Your task to perform on an android device: Go to Maps Image 0: 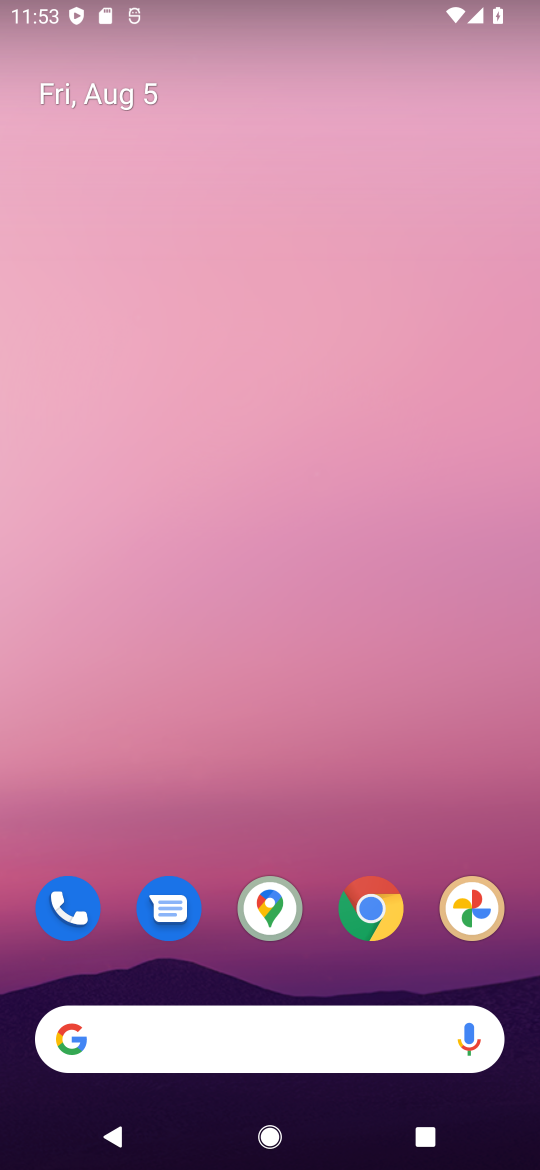
Step 0: drag from (318, 962) to (311, 248)
Your task to perform on an android device: Go to Maps Image 1: 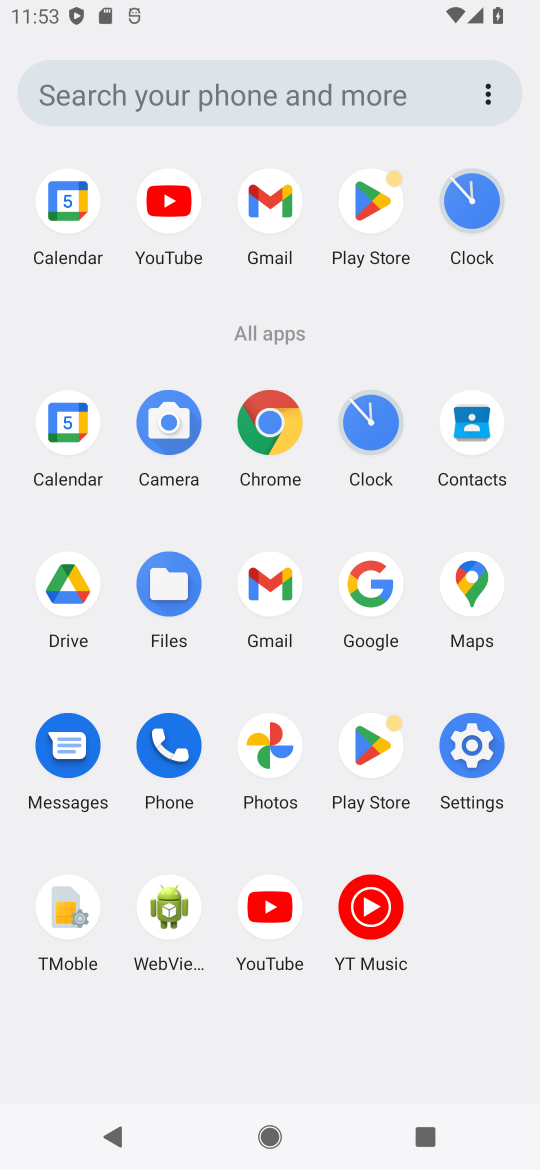
Step 1: click (466, 584)
Your task to perform on an android device: Go to Maps Image 2: 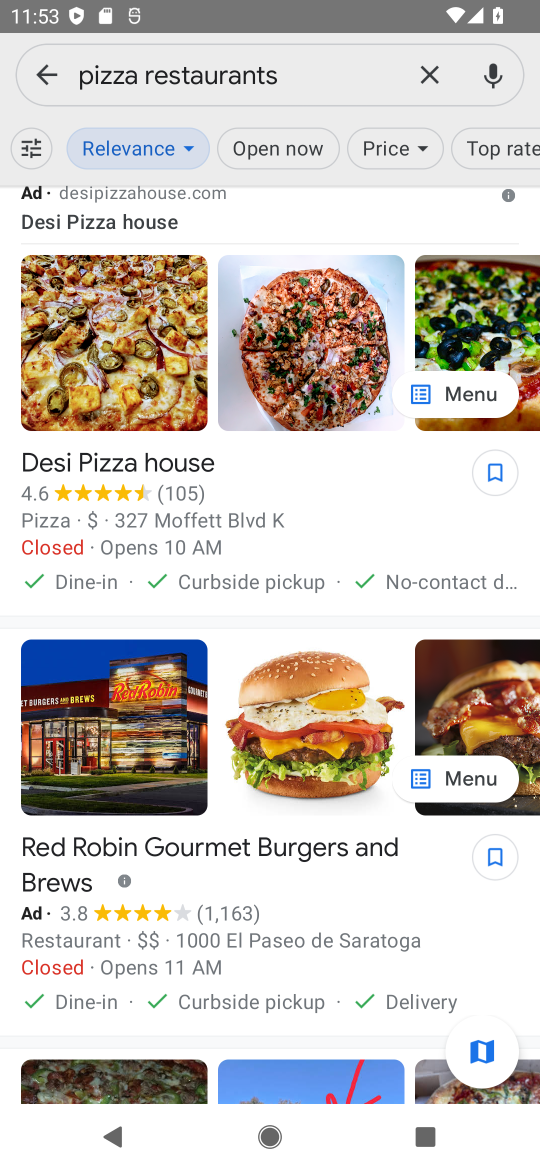
Step 2: task complete